Your task to perform on an android device: Go to Yahoo.com Image 0: 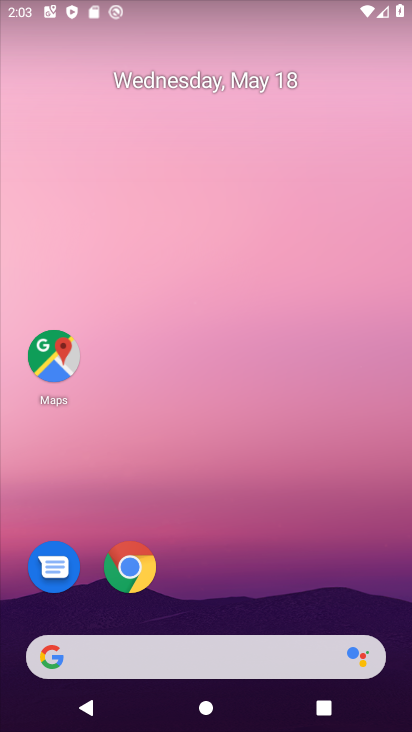
Step 0: click (129, 559)
Your task to perform on an android device: Go to Yahoo.com Image 1: 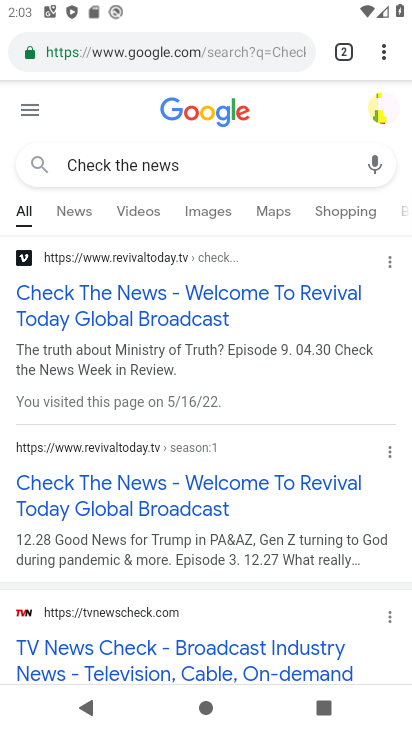
Step 1: click (378, 55)
Your task to perform on an android device: Go to Yahoo.com Image 2: 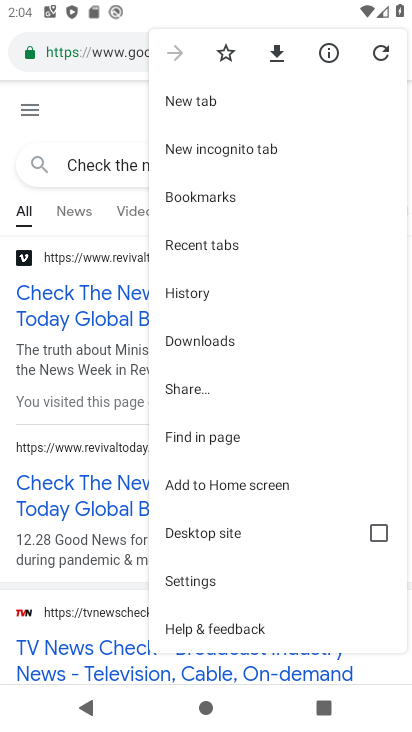
Step 2: click (192, 108)
Your task to perform on an android device: Go to Yahoo.com Image 3: 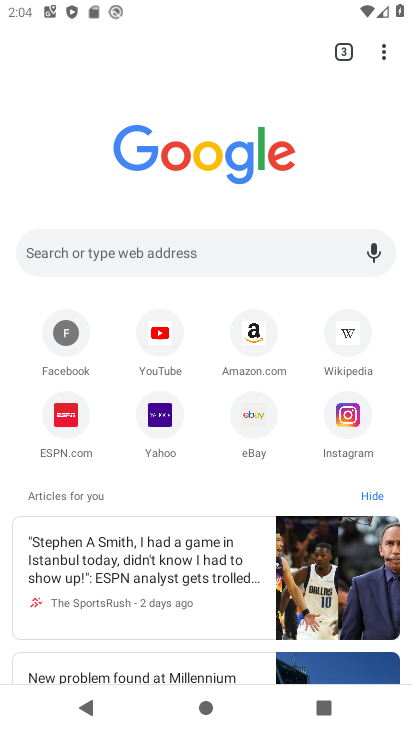
Step 3: click (160, 405)
Your task to perform on an android device: Go to Yahoo.com Image 4: 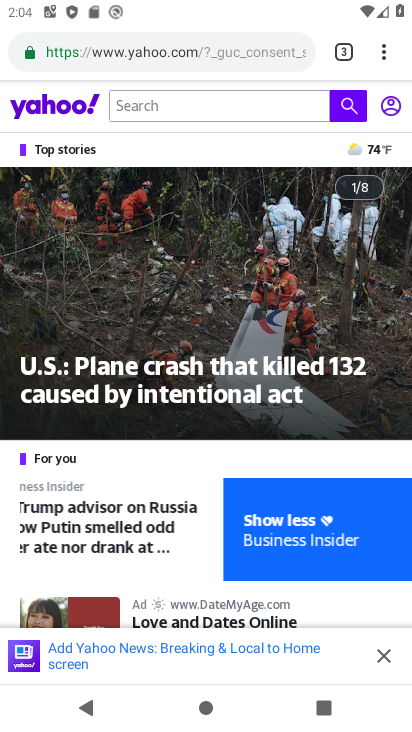
Step 4: task complete